Your task to perform on an android device: empty trash in google photos Image 0: 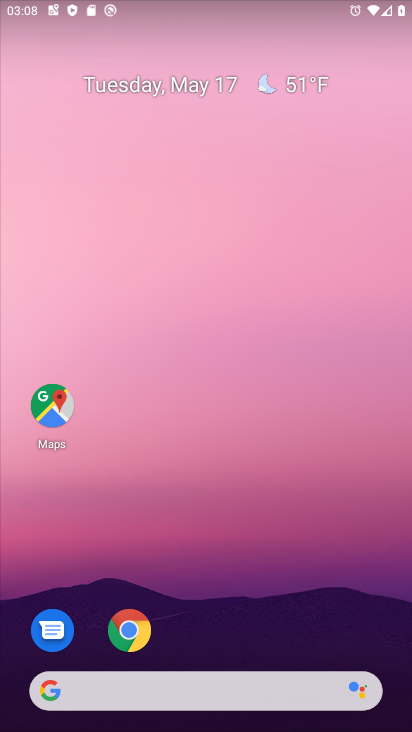
Step 0: drag from (204, 546) to (194, 241)
Your task to perform on an android device: empty trash in google photos Image 1: 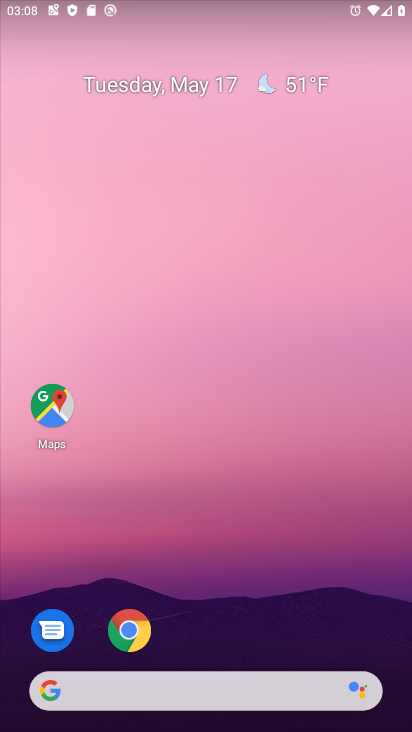
Step 1: drag from (210, 550) to (277, 65)
Your task to perform on an android device: empty trash in google photos Image 2: 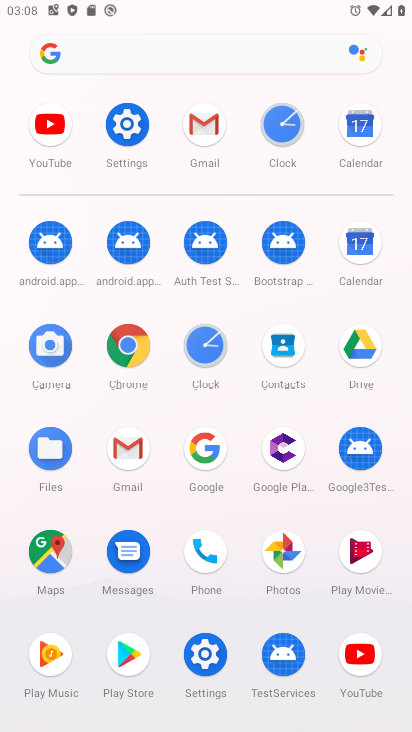
Step 2: click (293, 556)
Your task to perform on an android device: empty trash in google photos Image 3: 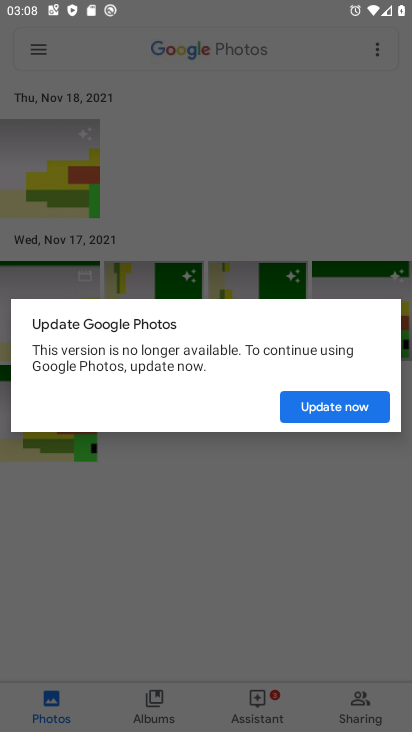
Step 3: click (304, 414)
Your task to perform on an android device: empty trash in google photos Image 4: 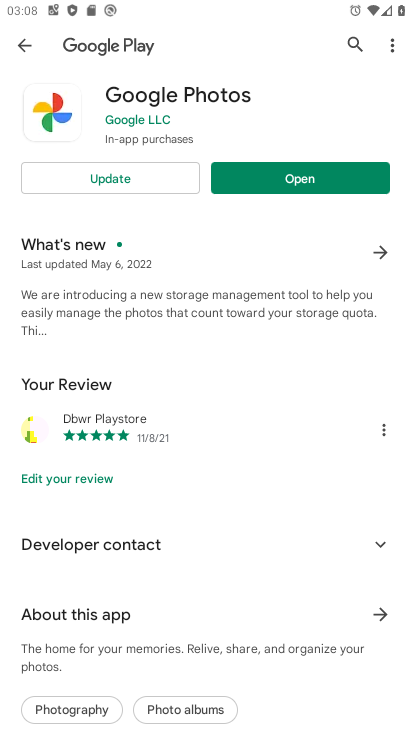
Step 4: click (277, 168)
Your task to perform on an android device: empty trash in google photos Image 5: 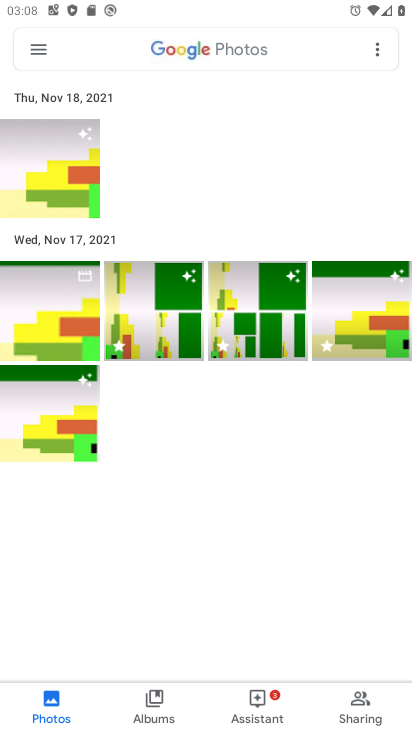
Step 5: click (28, 41)
Your task to perform on an android device: empty trash in google photos Image 6: 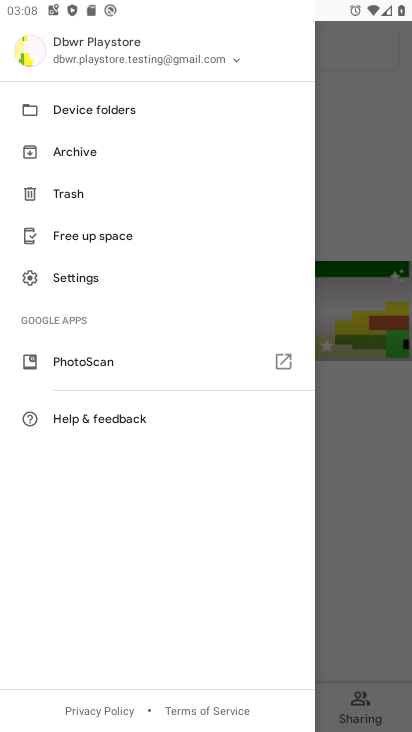
Step 6: click (66, 194)
Your task to perform on an android device: empty trash in google photos Image 7: 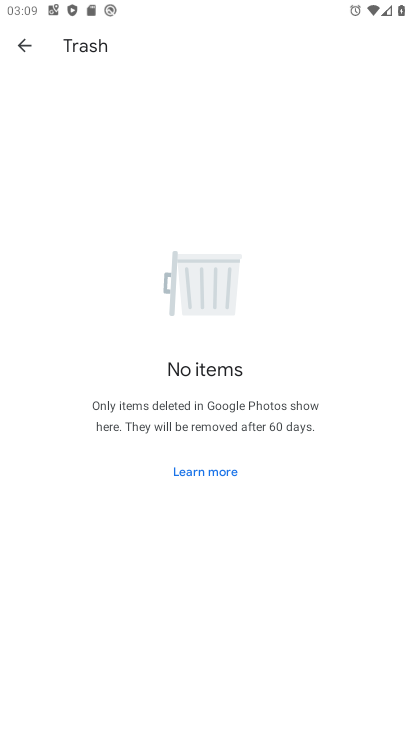
Step 7: task complete